Your task to perform on an android device: Go to network settings Image 0: 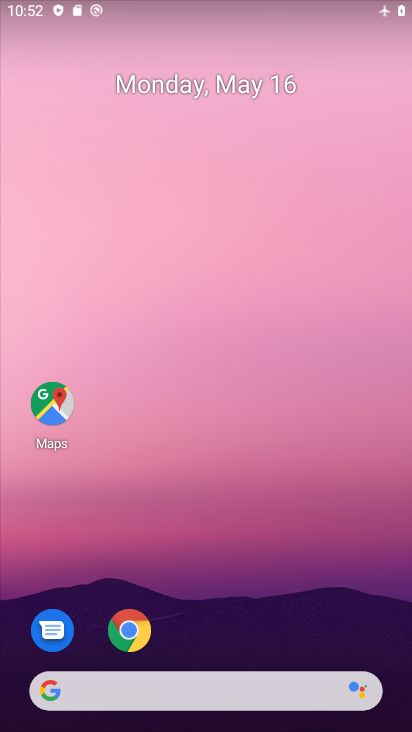
Step 0: drag from (294, 583) to (227, 141)
Your task to perform on an android device: Go to network settings Image 1: 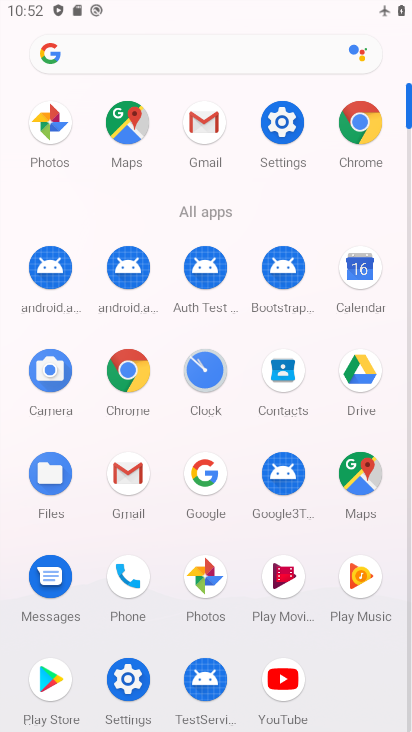
Step 1: click (283, 124)
Your task to perform on an android device: Go to network settings Image 2: 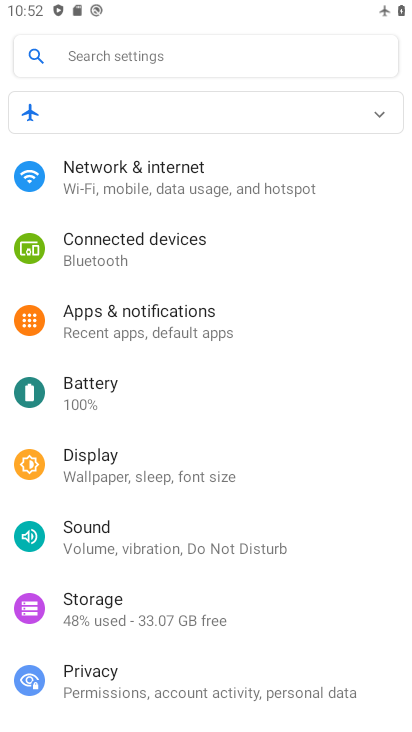
Step 2: click (283, 183)
Your task to perform on an android device: Go to network settings Image 3: 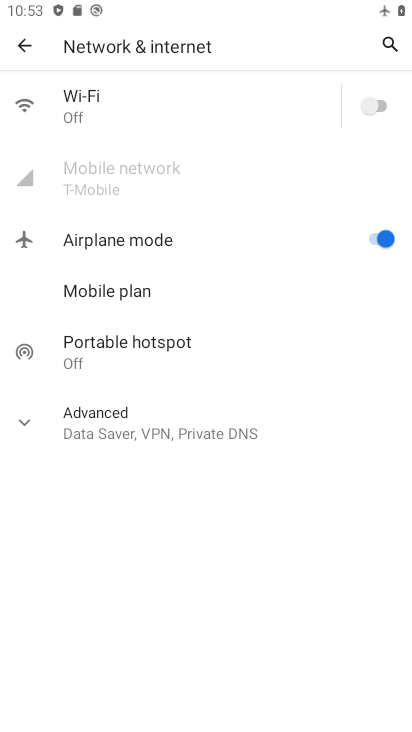
Step 3: task complete